Your task to perform on an android device: allow notifications from all sites in the chrome app Image 0: 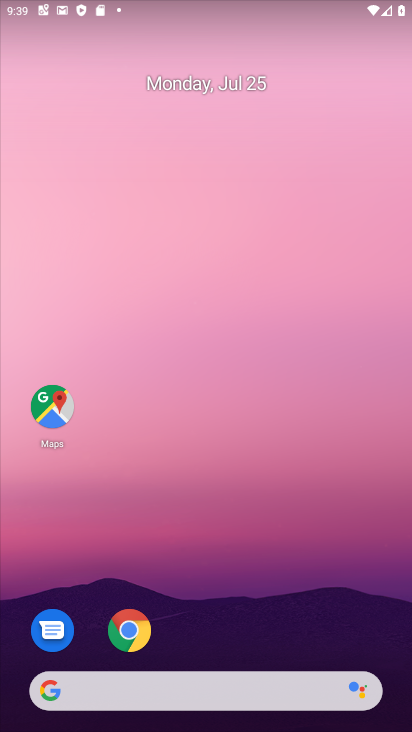
Step 0: press home button
Your task to perform on an android device: allow notifications from all sites in the chrome app Image 1: 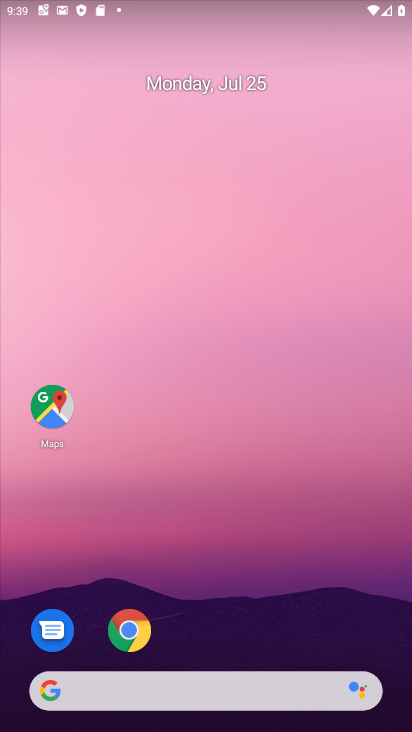
Step 1: drag from (261, 621) to (251, 151)
Your task to perform on an android device: allow notifications from all sites in the chrome app Image 2: 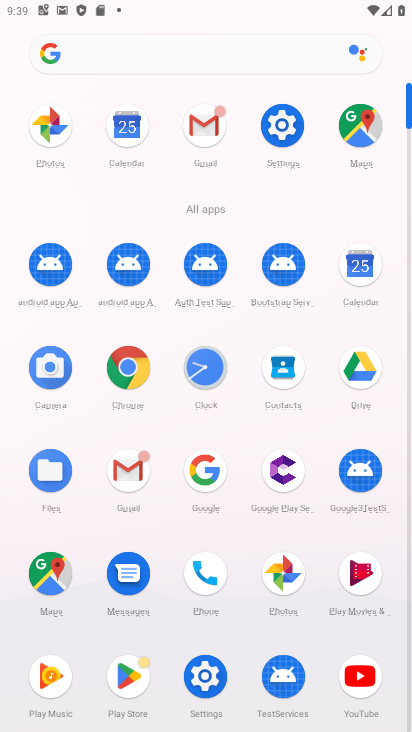
Step 2: click (110, 370)
Your task to perform on an android device: allow notifications from all sites in the chrome app Image 3: 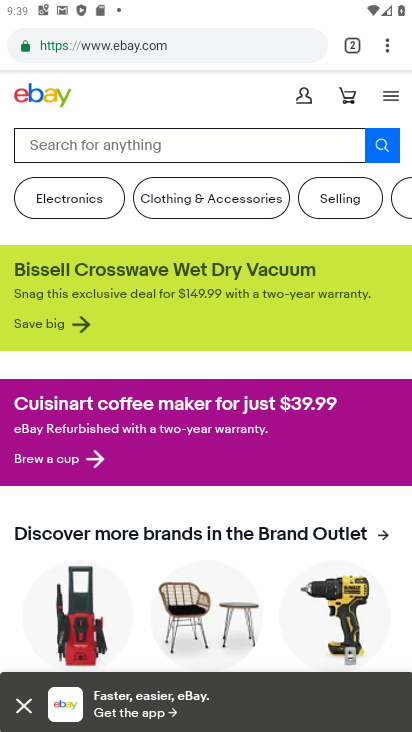
Step 3: drag from (393, 48) to (235, 553)
Your task to perform on an android device: allow notifications from all sites in the chrome app Image 4: 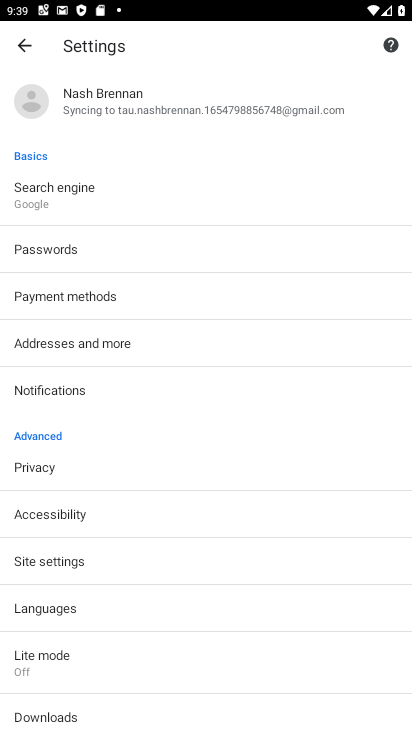
Step 4: click (79, 551)
Your task to perform on an android device: allow notifications from all sites in the chrome app Image 5: 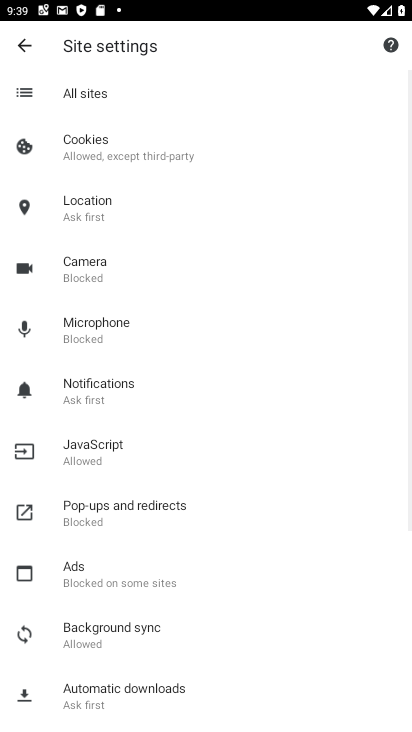
Step 5: click (114, 393)
Your task to perform on an android device: allow notifications from all sites in the chrome app Image 6: 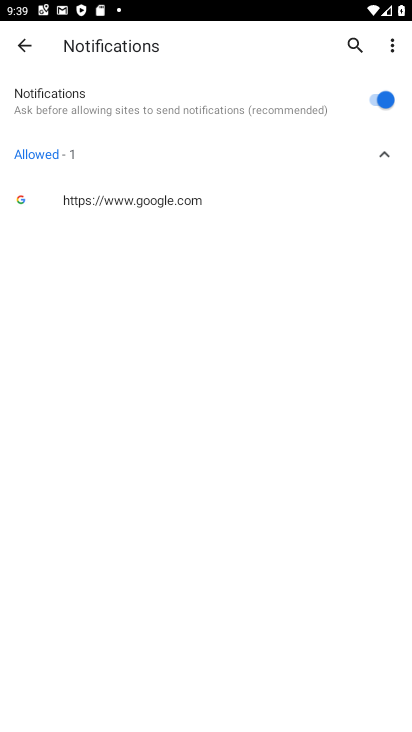
Step 6: task complete